Your task to perform on an android device: turn on wifi Image 0: 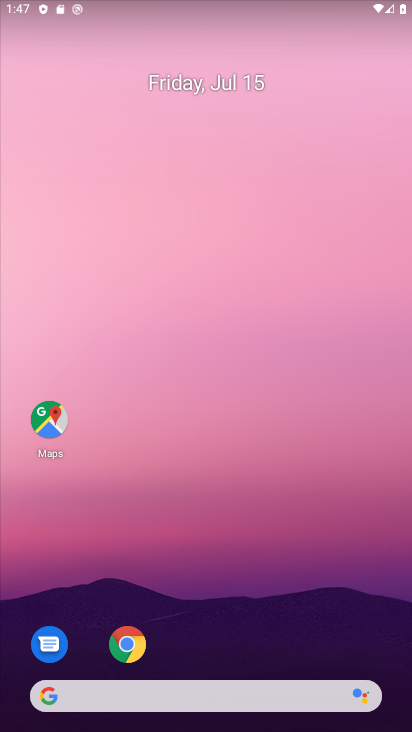
Step 0: drag from (78, 459) to (214, 136)
Your task to perform on an android device: turn on wifi Image 1: 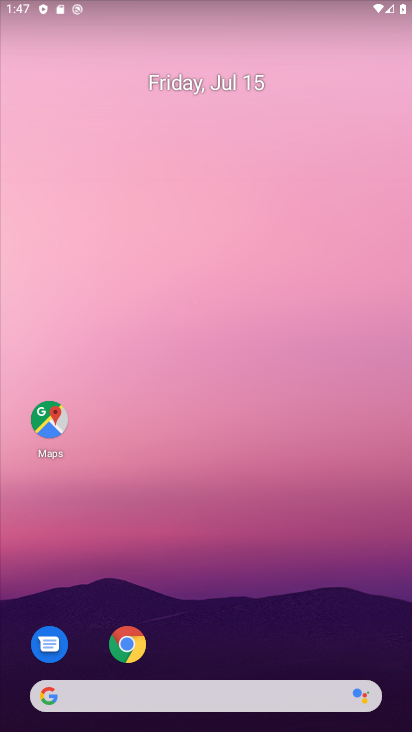
Step 1: drag from (60, 566) to (265, 8)
Your task to perform on an android device: turn on wifi Image 2: 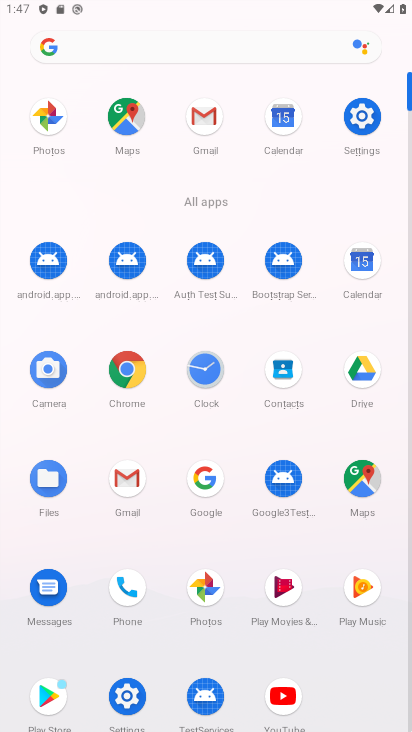
Step 2: click (371, 127)
Your task to perform on an android device: turn on wifi Image 3: 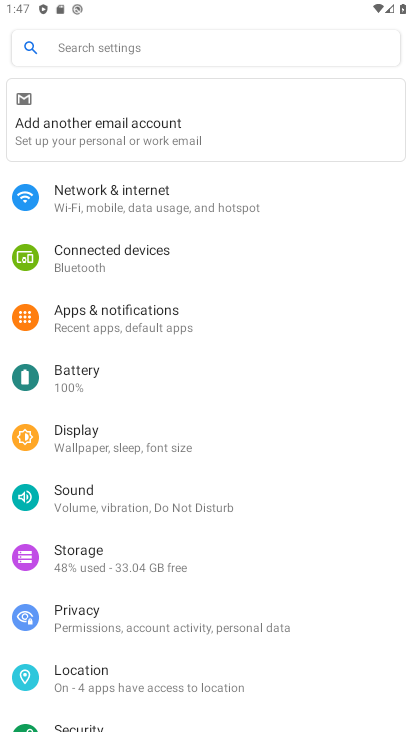
Step 3: click (133, 202)
Your task to perform on an android device: turn on wifi Image 4: 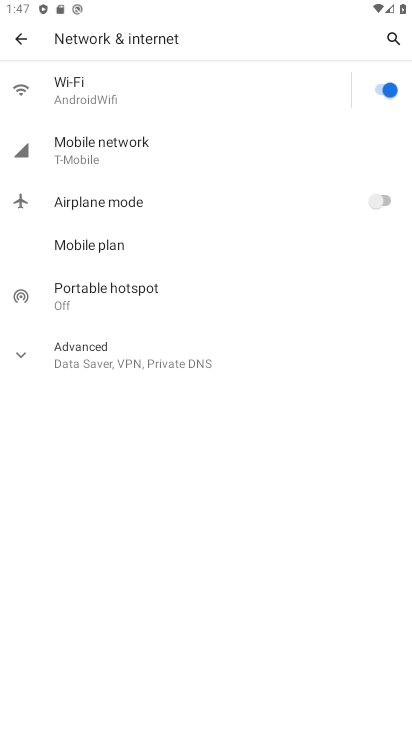
Step 4: click (79, 88)
Your task to perform on an android device: turn on wifi Image 5: 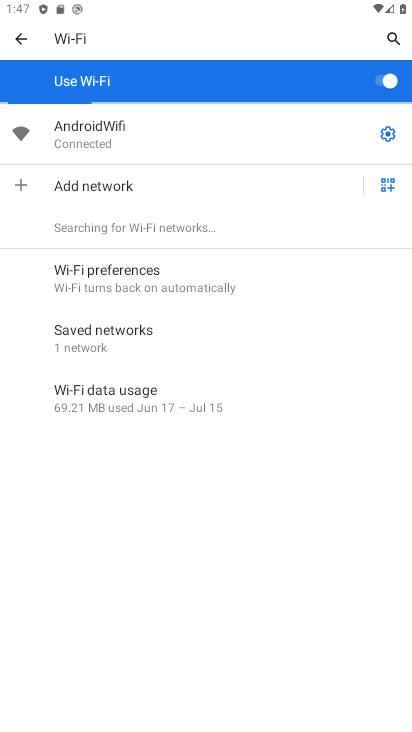
Step 5: task complete